Your task to perform on an android device: Open the calendar and show me this week's events? Image 0: 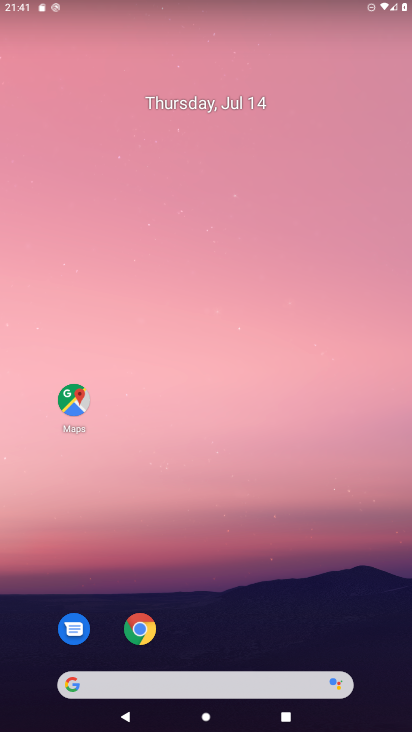
Step 0: click (195, 251)
Your task to perform on an android device: Open the calendar and show me this week's events? Image 1: 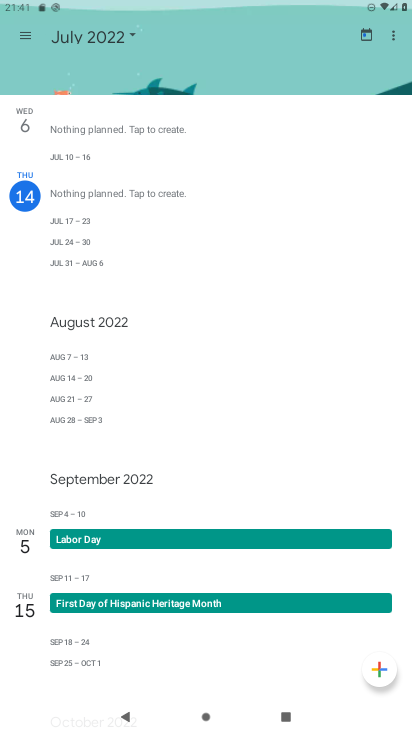
Step 1: click (18, 36)
Your task to perform on an android device: Open the calendar and show me this week's events? Image 2: 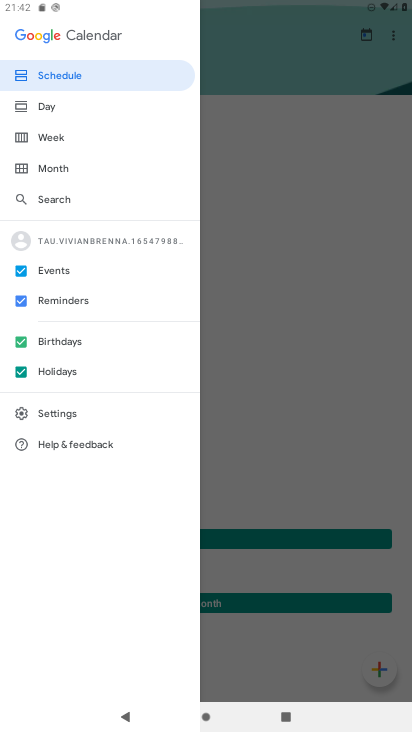
Step 2: click (65, 160)
Your task to perform on an android device: Open the calendar and show me this week's events? Image 3: 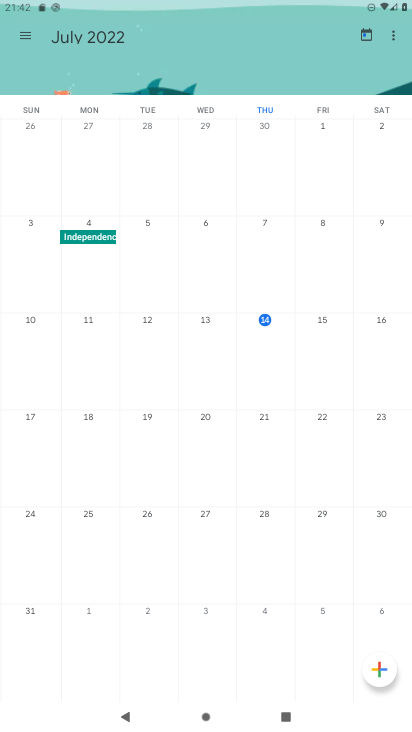
Step 3: click (19, 31)
Your task to perform on an android device: Open the calendar and show me this week's events? Image 4: 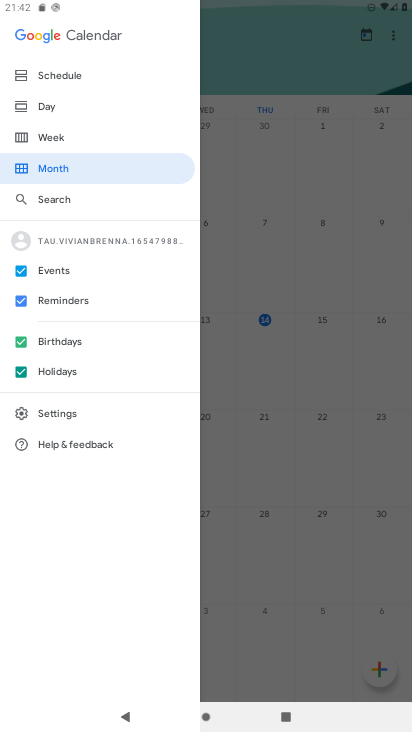
Step 4: click (62, 134)
Your task to perform on an android device: Open the calendar and show me this week's events? Image 5: 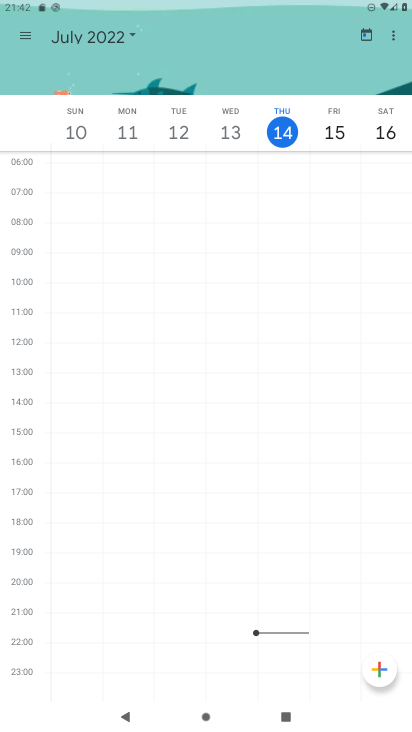
Step 5: task complete